Your task to perform on an android device: What's on my calendar today? Image 0: 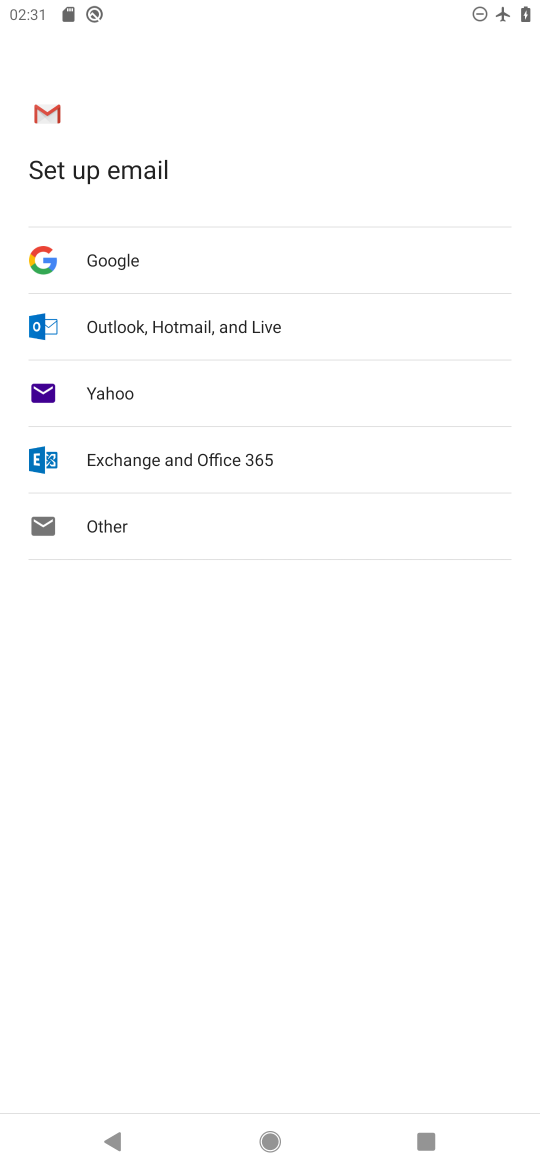
Step 0: press home button
Your task to perform on an android device: What's on my calendar today? Image 1: 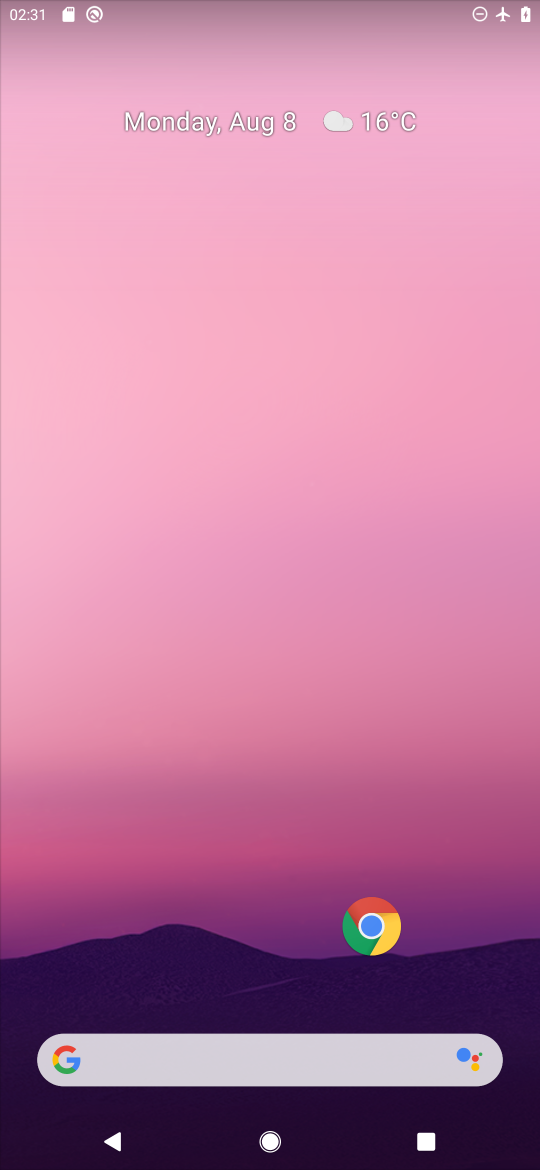
Step 1: drag from (274, 1006) to (393, 351)
Your task to perform on an android device: What's on my calendar today? Image 2: 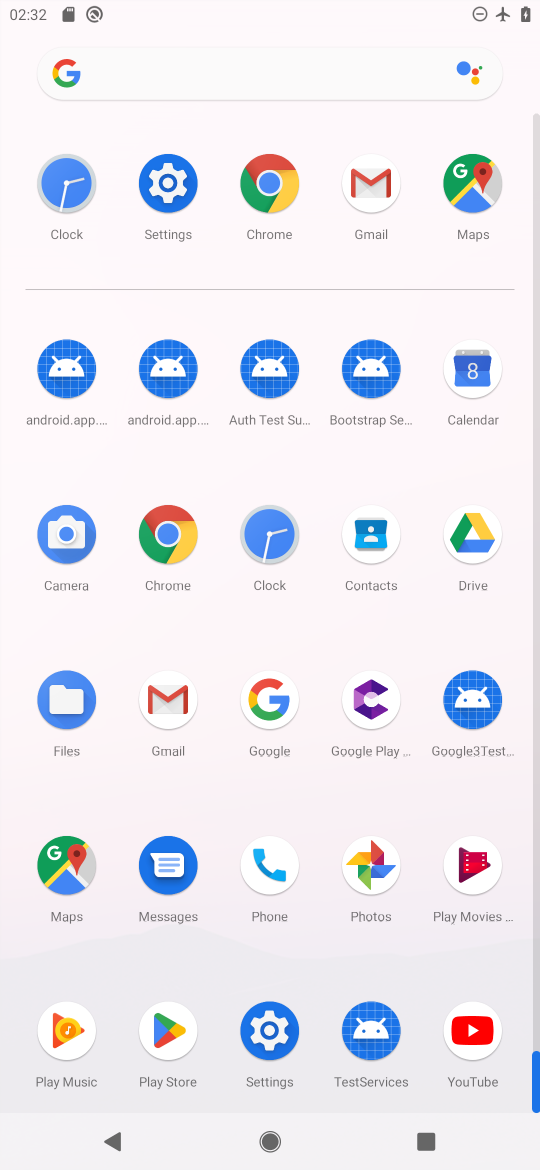
Step 2: drag from (307, 944) to (491, 170)
Your task to perform on an android device: What's on my calendar today? Image 3: 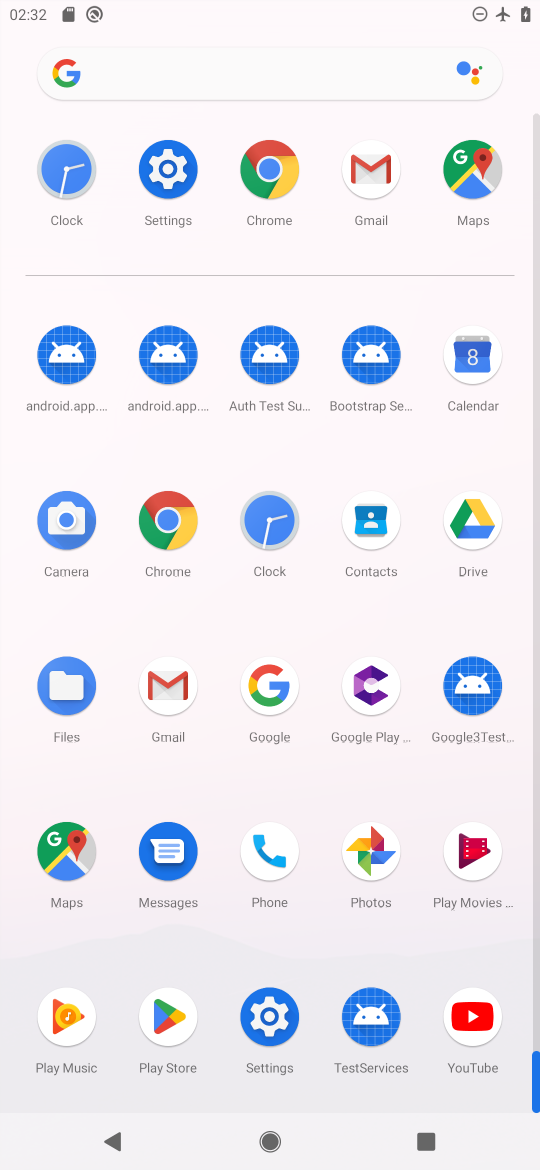
Step 3: click (468, 338)
Your task to perform on an android device: What's on my calendar today? Image 4: 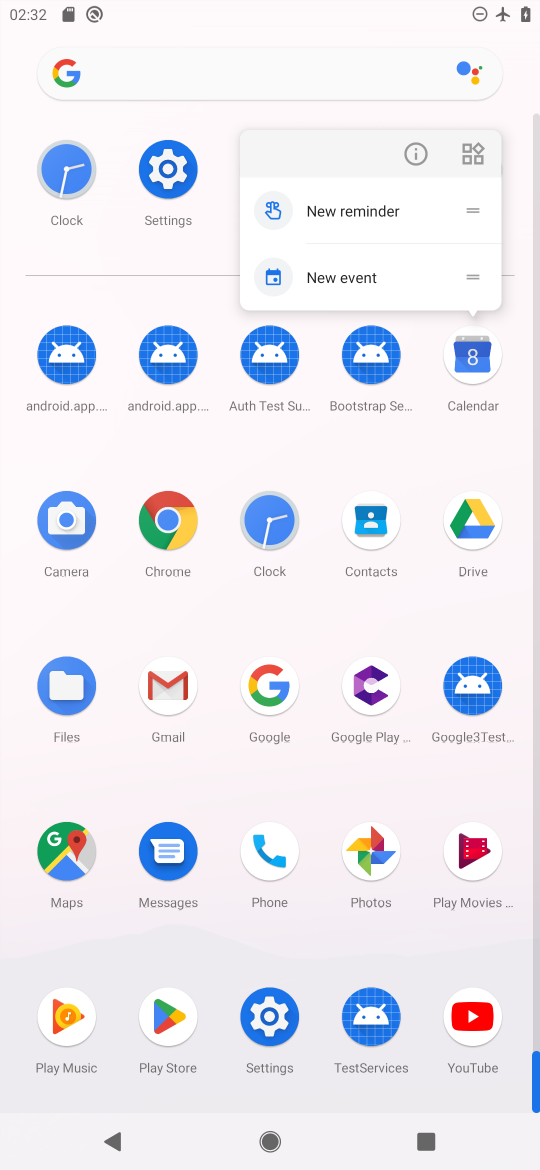
Step 4: click (471, 353)
Your task to perform on an android device: What's on my calendar today? Image 5: 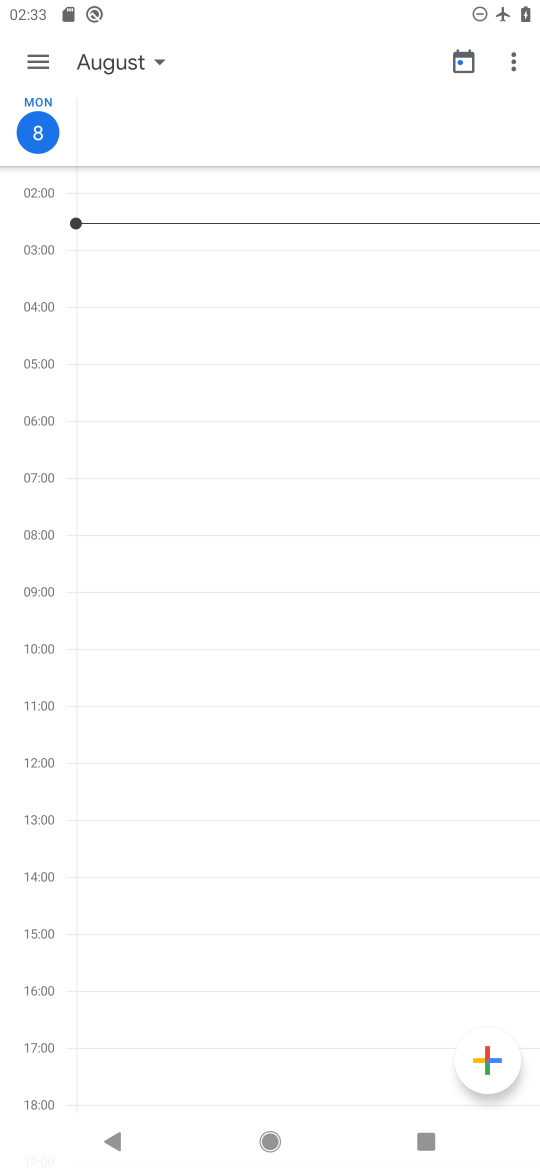
Step 5: click (36, 47)
Your task to perform on an android device: What's on my calendar today? Image 6: 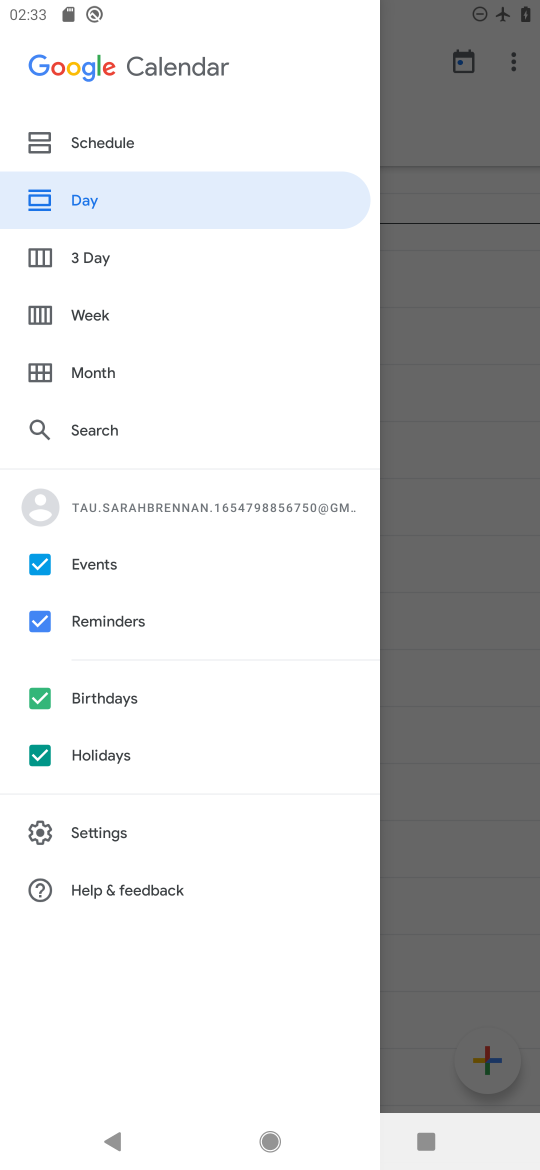
Step 6: click (104, 358)
Your task to perform on an android device: What's on my calendar today? Image 7: 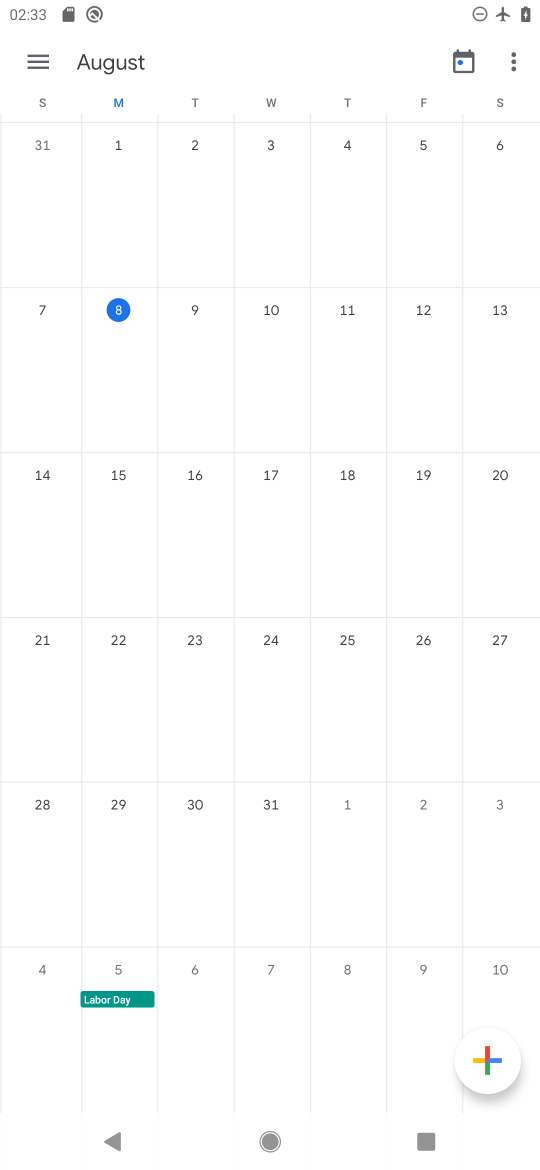
Step 7: click (137, 334)
Your task to perform on an android device: What's on my calendar today? Image 8: 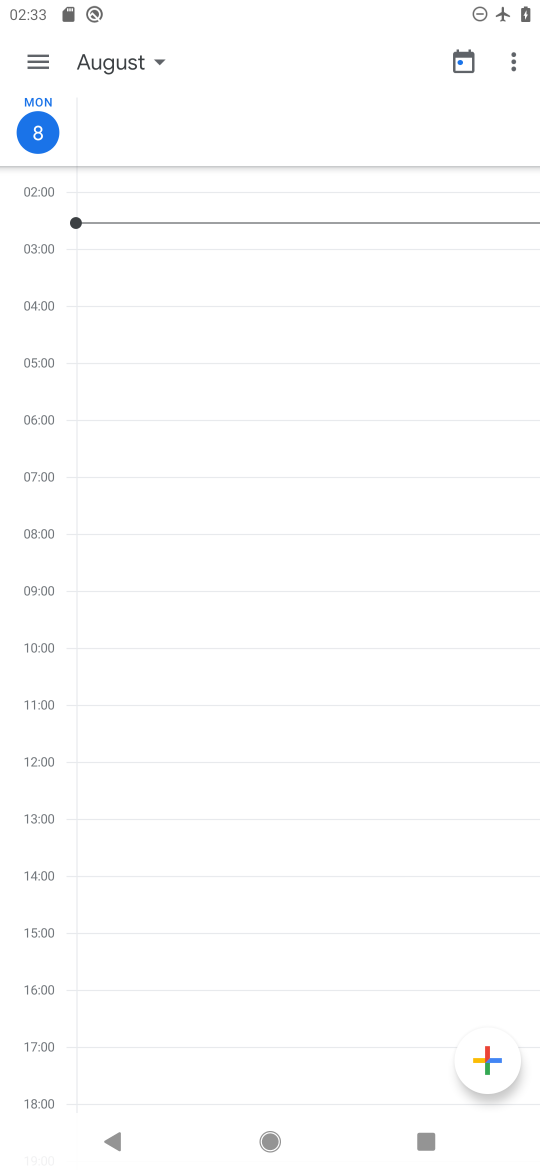
Step 8: task complete